Your task to perform on an android device: Open calendar and show me the second week of next month Image 0: 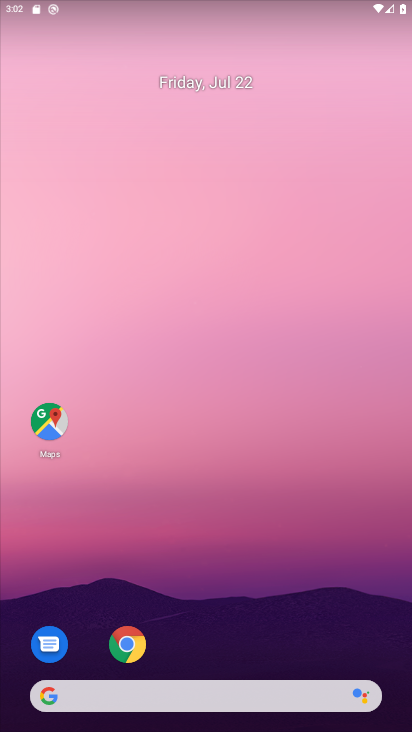
Step 0: drag from (184, 666) to (230, 198)
Your task to perform on an android device: Open calendar and show me the second week of next month Image 1: 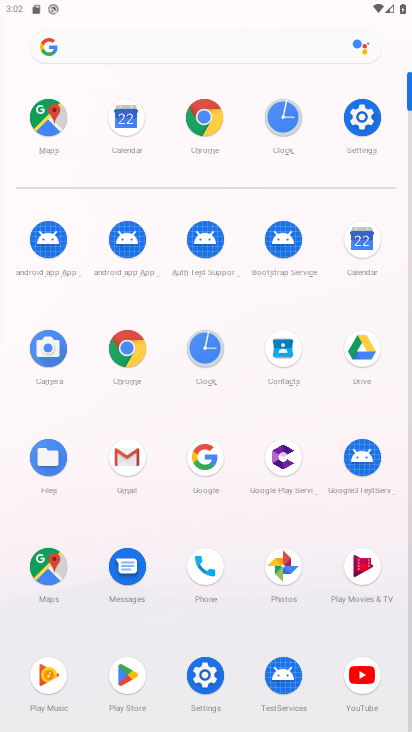
Step 1: click (365, 242)
Your task to perform on an android device: Open calendar and show me the second week of next month Image 2: 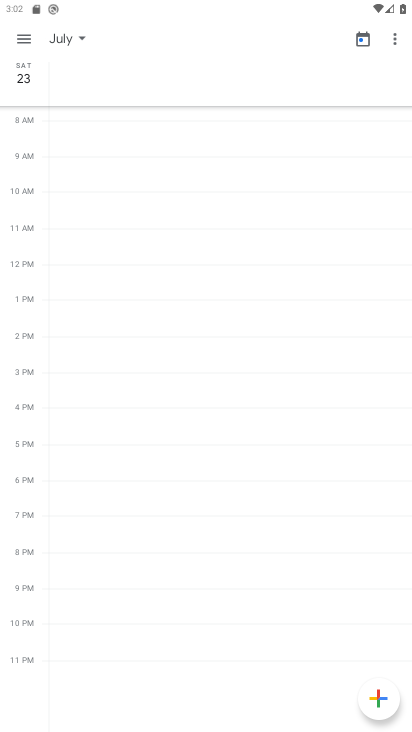
Step 2: click (23, 33)
Your task to perform on an android device: Open calendar and show me the second week of next month Image 3: 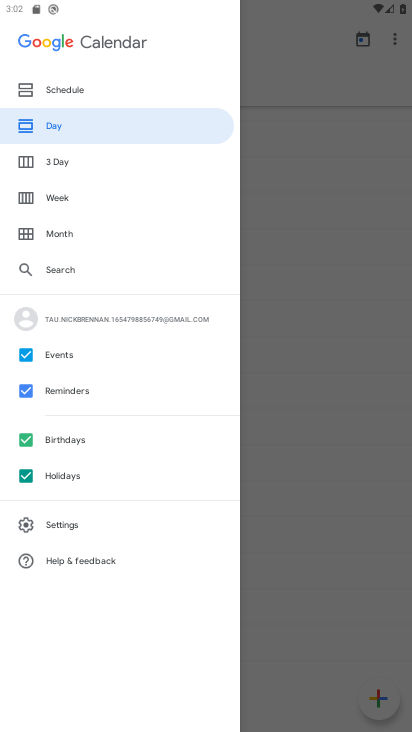
Step 3: click (72, 232)
Your task to perform on an android device: Open calendar and show me the second week of next month Image 4: 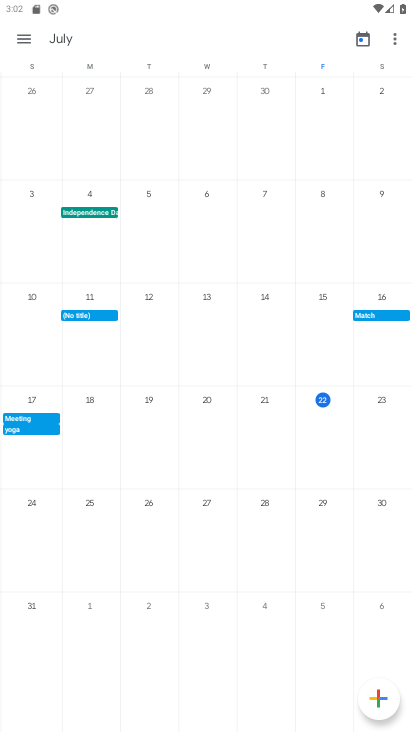
Step 4: drag from (324, 316) to (8, 129)
Your task to perform on an android device: Open calendar and show me the second week of next month Image 5: 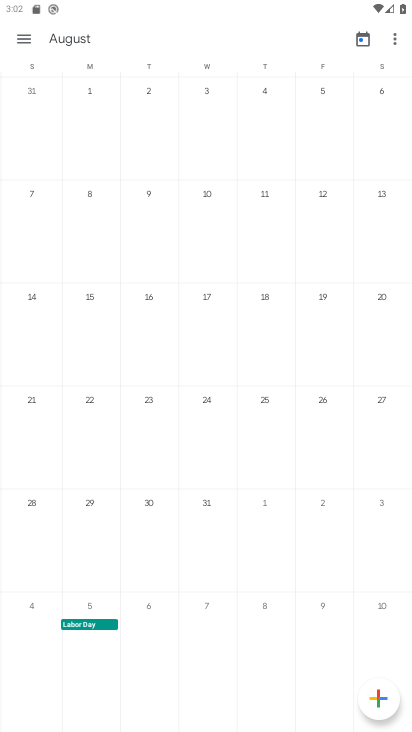
Step 5: click (19, 34)
Your task to perform on an android device: Open calendar and show me the second week of next month Image 6: 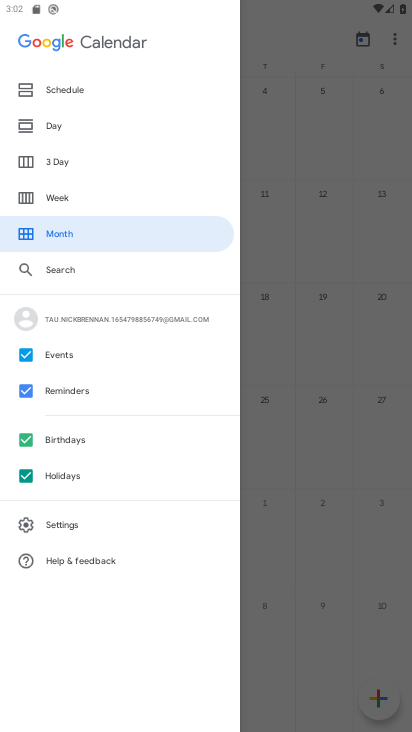
Step 6: click (52, 187)
Your task to perform on an android device: Open calendar and show me the second week of next month Image 7: 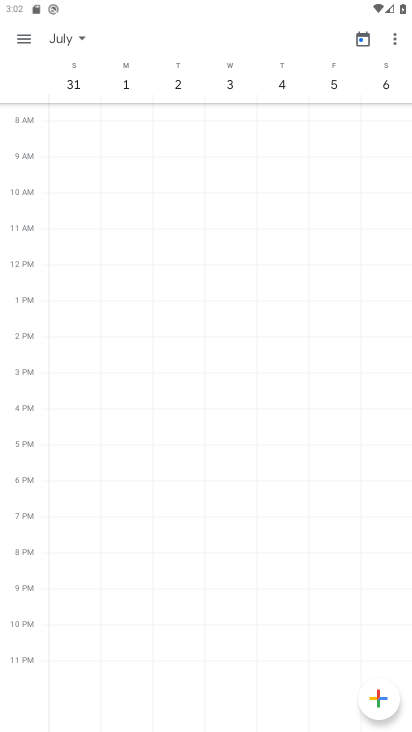
Step 7: task complete